Your task to perform on an android device: add a label to a message in the gmail app Image 0: 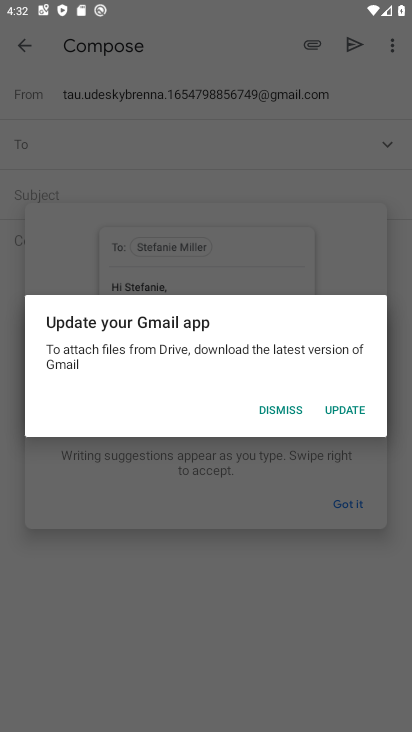
Step 0: press back button
Your task to perform on an android device: add a label to a message in the gmail app Image 1: 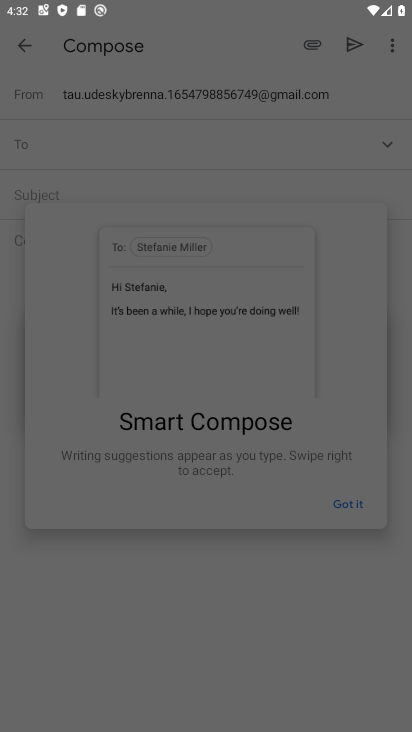
Step 1: press home button
Your task to perform on an android device: add a label to a message in the gmail app Image 2: 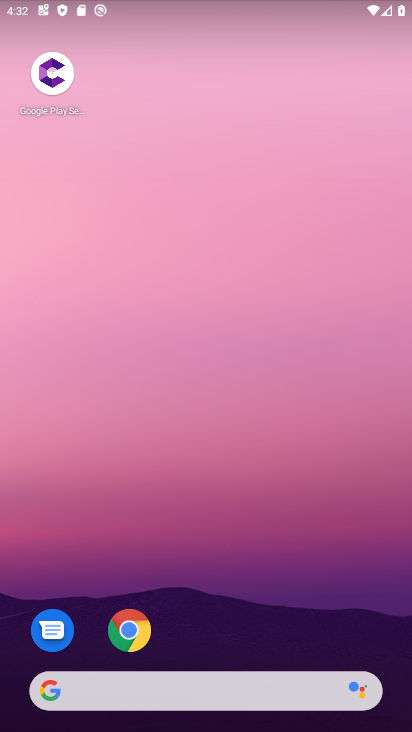
Step 2: drag from (249, 630) to (283, 42)
Your task to perform on an android device: add a label to a message in the gmail app Image 3: 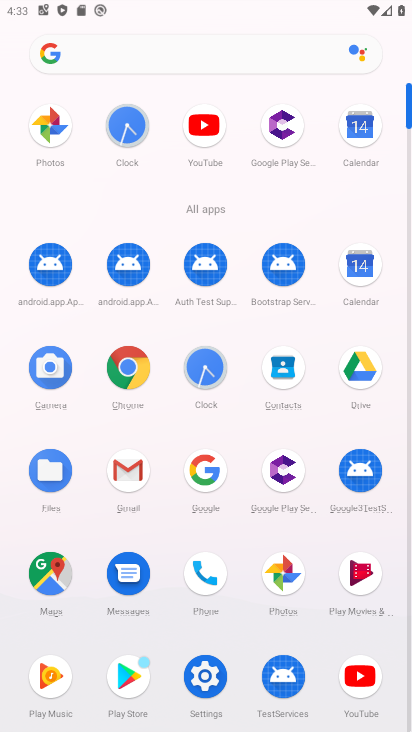
Step 3: click (123, 473)
Your task to perform on an android device: add a label to a message in the gmail app Image 4: 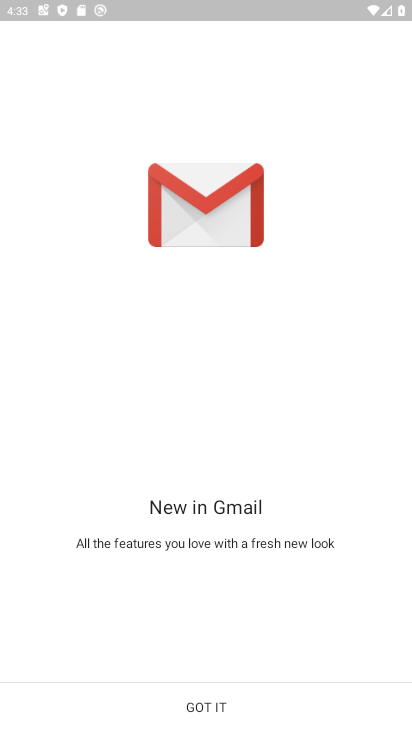
Step 4: click (205, 702)
Your task to perform on an android device: add a label to a message in the gmail app Image 5: 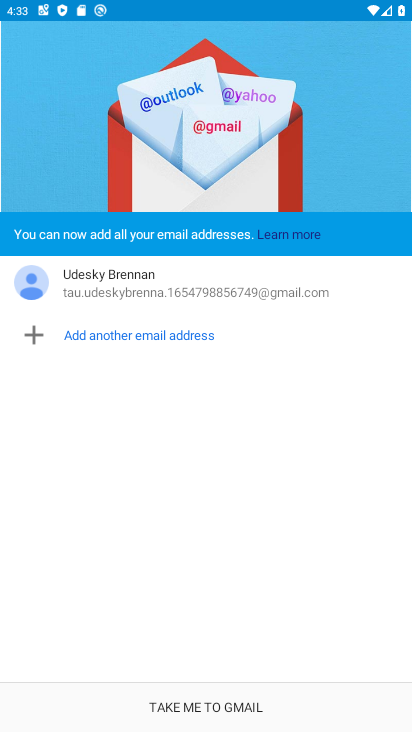
Step 5: click (203, 701)
Your task to perform on an android device: add a label to a message in the gmail app Image 6: 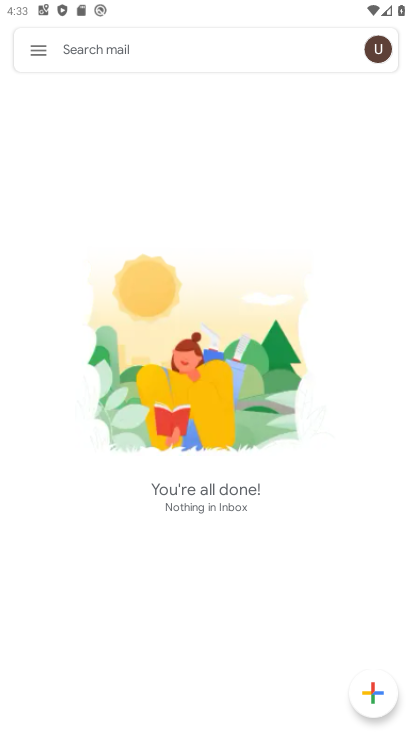
Step 6: click (40, 43)
Your task to perform on an android device: add a label to a message in the gmail app Image 7: 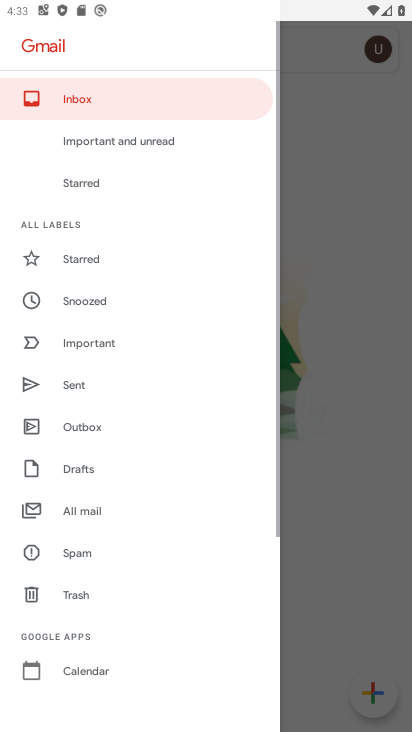
Step 7: click (76, 515)
Your task to perform on an android device: add a label to a message in the gmail app Image 8: 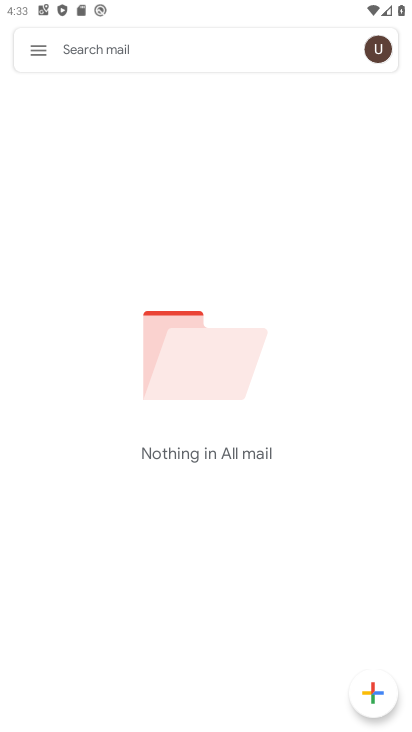
Step 8: task complete